Your task to perform on an android device: move an email to a new category in the gmail app Image 0: 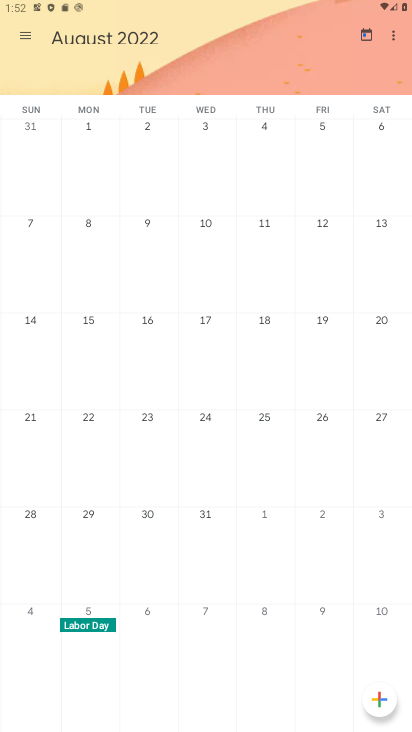
Step 0: press home button
Your task to perform on an android device: move an email to a new category in the gmail app Image 1: 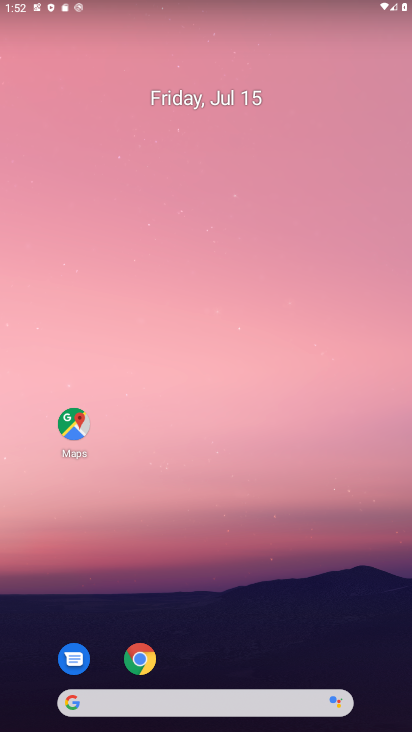
Step 1: drag from (237, 665) to (236, 248)
Your task to perform on an android device: move an email to a new category in the gmail app Image 2: 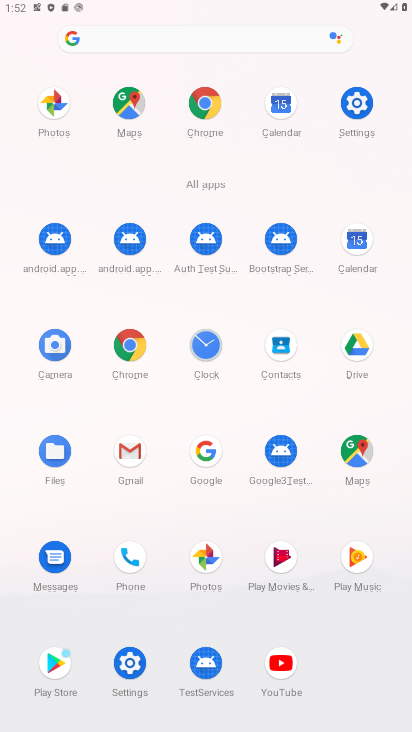
Step 2: click (117, 453)
Your task to perform on an android device: move an email to a new category in the gmail app Image 3: 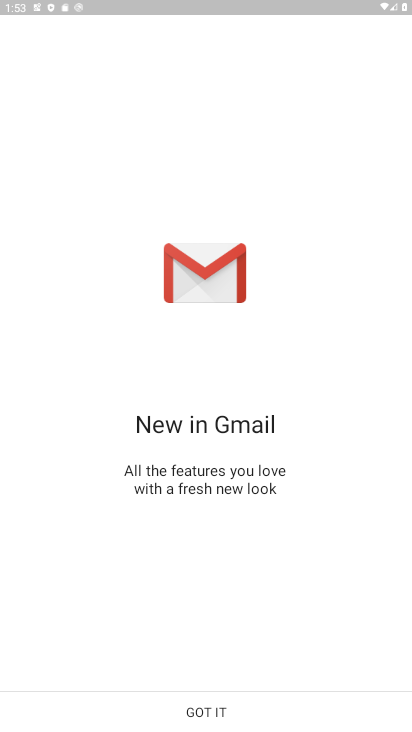
Step 3: click (232, 704)
Your task to perform on an android device: move an email to a new category in the gmail app Image 4: 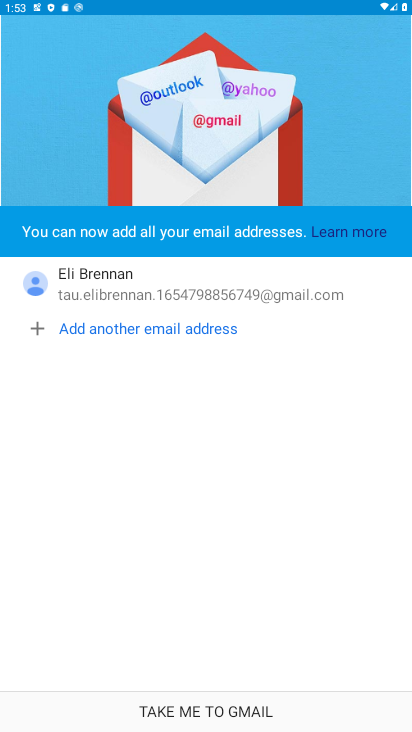
Step 4: click (239, 716)
Your task to perform on an android device: move an email to a new category in the gmail app Image 5: 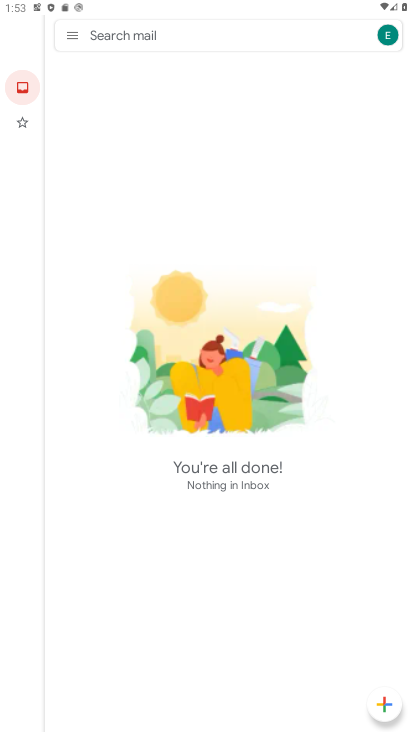
Step 5: click (71, 24)
Your task to perform on an android device: move an email to a new category in the gmail app Image 6: 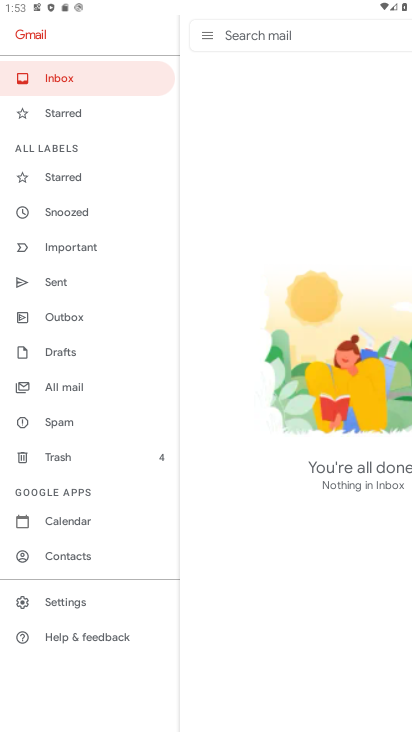
Step 6: click (87, 381)
Your task to perform on an android device: move an email to a new category in the gmail app Image 7: 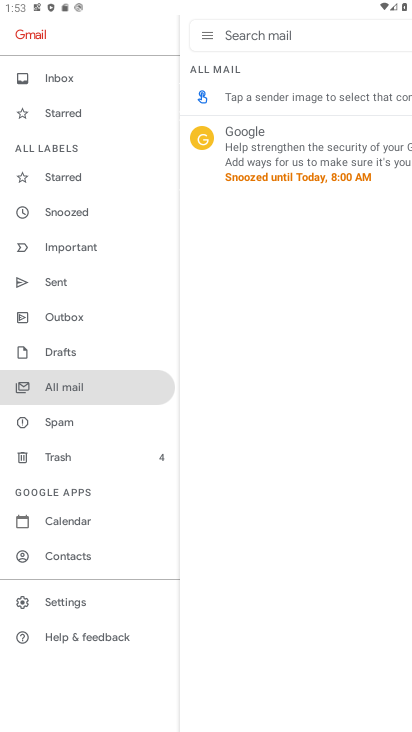
Step 7: click (307, 146)
Your task to perform on an android device: move an email to a new category in the gmail app Image 8: 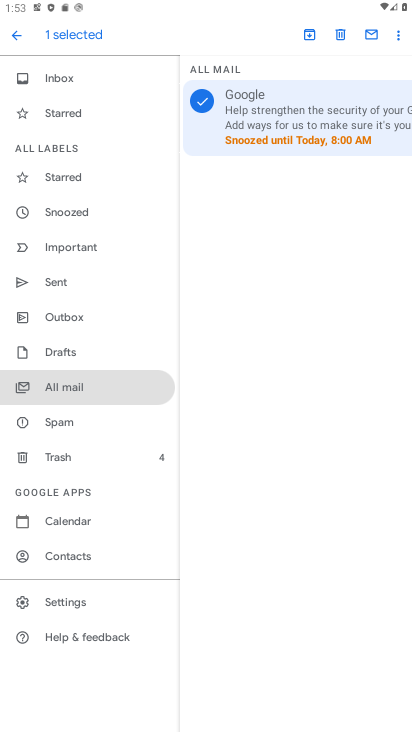
Step 8: click (398, 32)
Your task to perform on an android device: move an email to a new category in the gmail app Image 9: 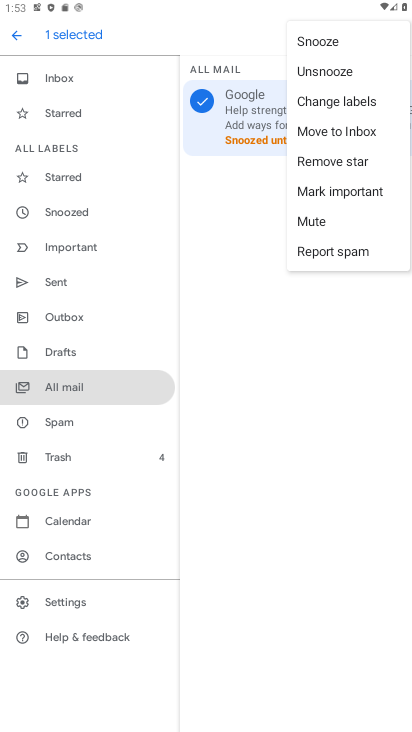
Step 9: click (343, 130)
Your task to perform on an android device: move an email to a new category in the gmail app Image 10: 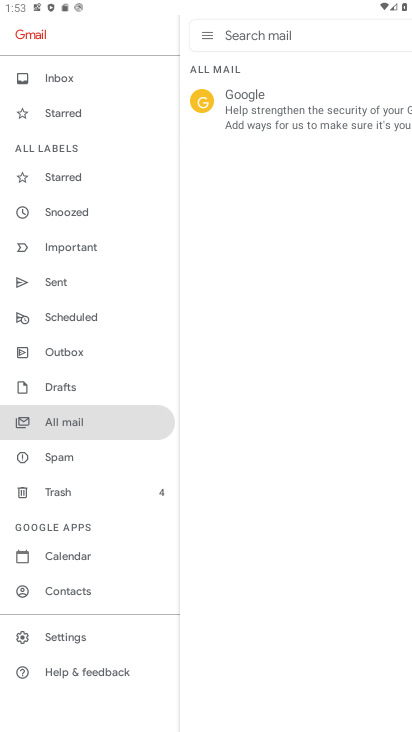
Step 10: task complete